Your task to perform on an android device: Is it going to rain tomorrow? Image 0: 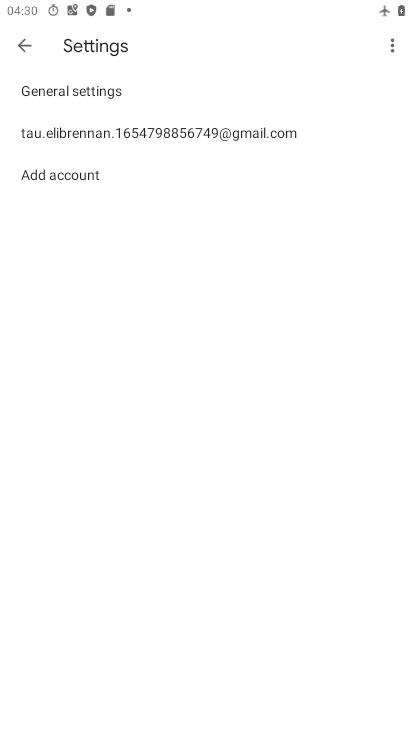
Step 0: press home button
Your task to perform on an android device: Is it going to rain tomorrow? Image 1: 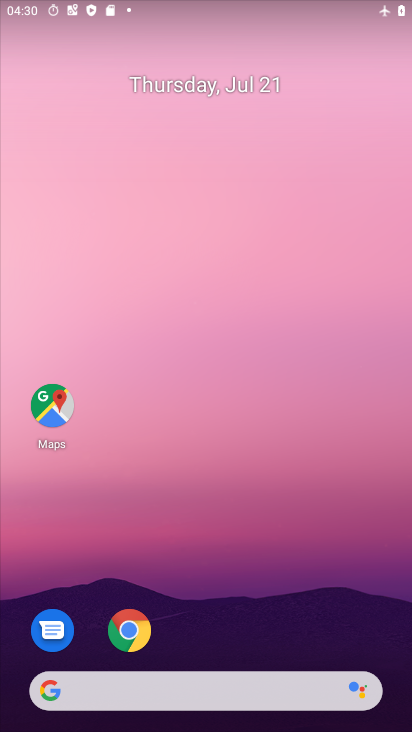
Step 1: click (163, 684)
Your task to perform on an android device: Is it going to rain tomorrow? Image 2: 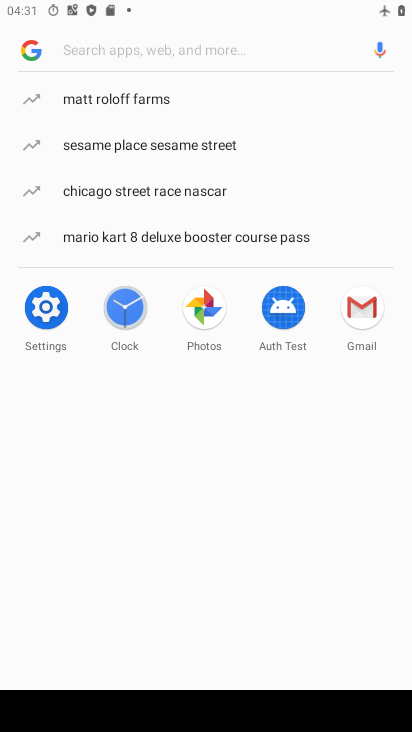
Step 2: type "tomorrow weather"
Your task to perform on an android device: Is it going to rain tomorrow? Image 3: 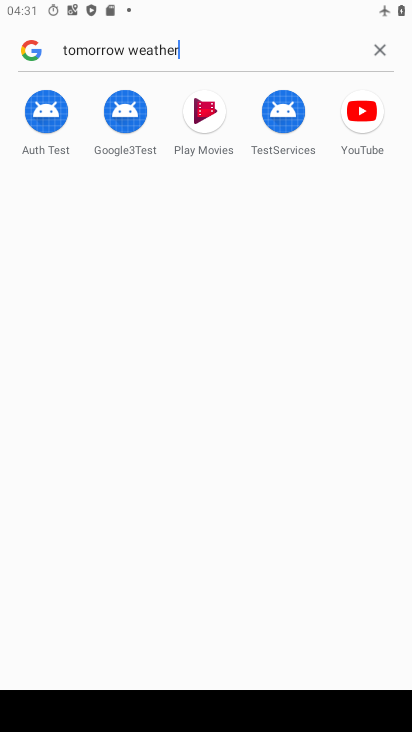
Step 3: type ""
Your task to perform on an android device: Is it going to rain tomorrow? Image 4: 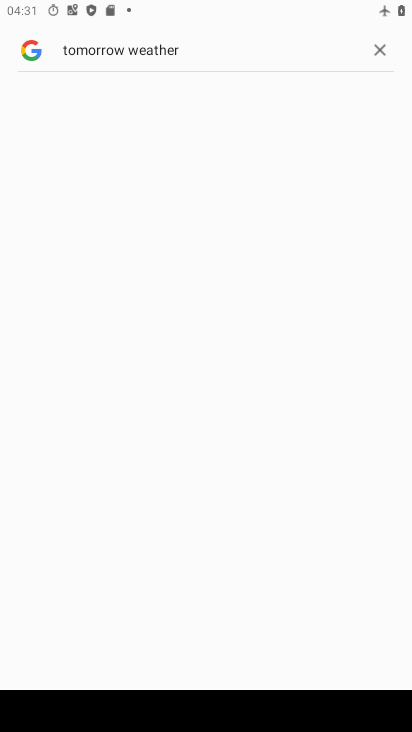
Step 4: drag from (212, 9) to (237, 533)
Your task to perform on an android device: Is it going to rain tomorrow? Image 5: 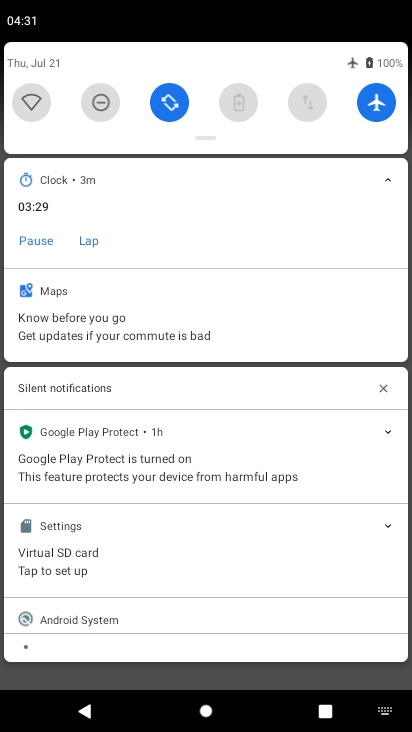
Step 5: click (382, 117)
Your task to perform on an android device: Is it going to rain tomorrow? Image 6: 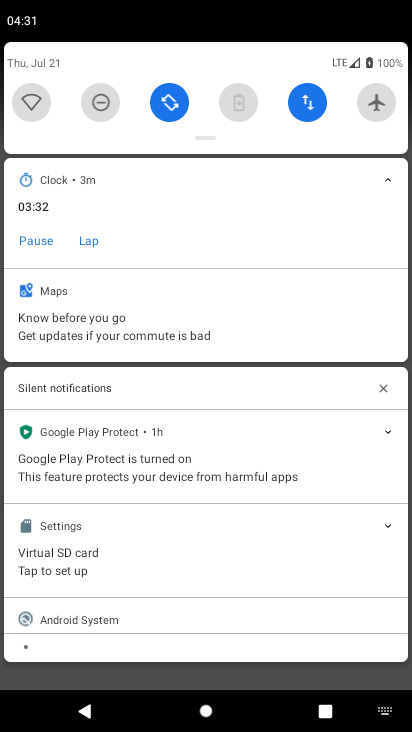
Step 6: task complete